Your task to perform on an android device: Turn off the flashlight Image 0: 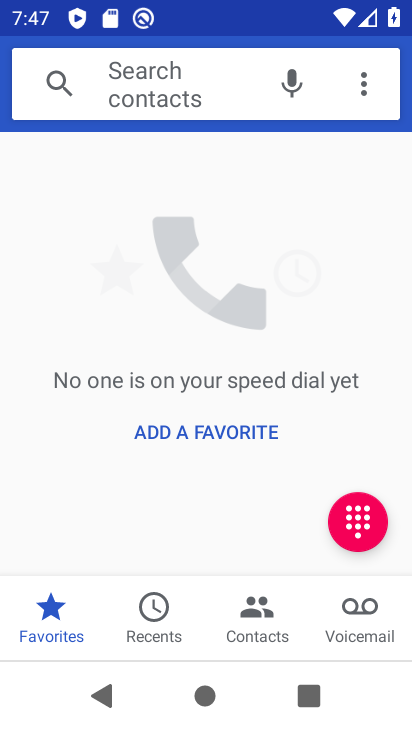
Step 0: press home button
Your task to perform on an android device: Turn off the flashlight Image 1: 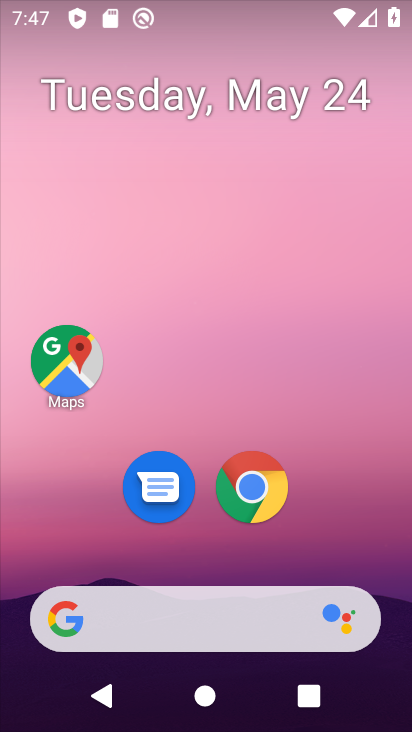
Step 1: drag from (14, 631) to (256, 197)
Your task to perform on an android device: Turn off the flashlight Image 2: 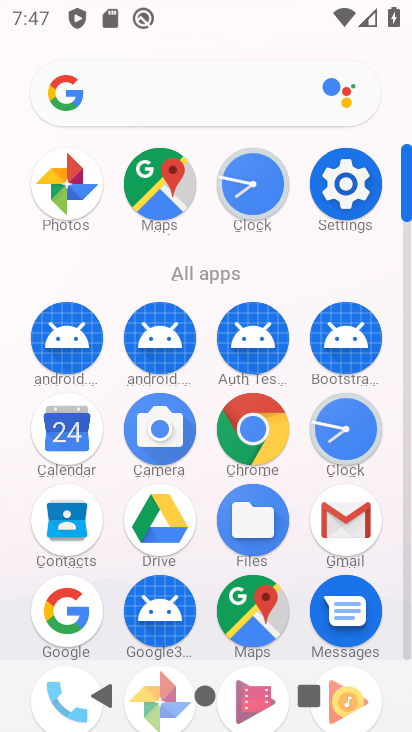
Step 2: click (333, 177)
Your task to perform on an android device: Turn off the flashlight Image 3: 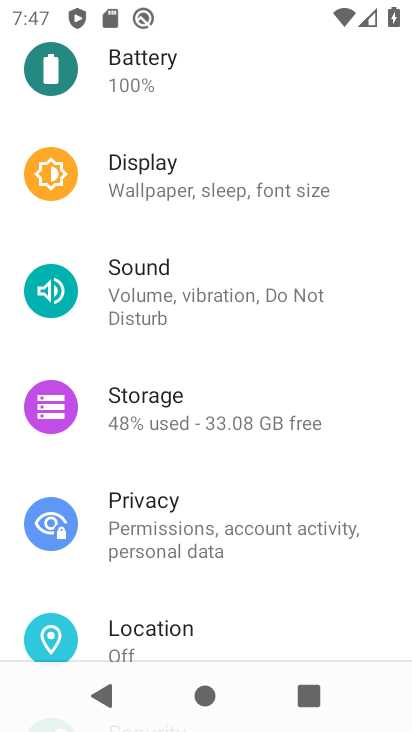
Step 3: click (176, 535)
Your task to perform on an android device: Turn off the flashlight Image 4: 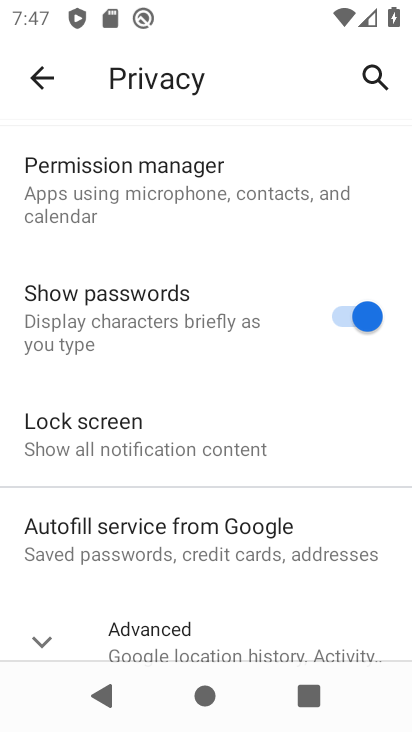
Step 4: task complete